Your task to perform on an android device: toggle data saver in the chrome app Image 0: 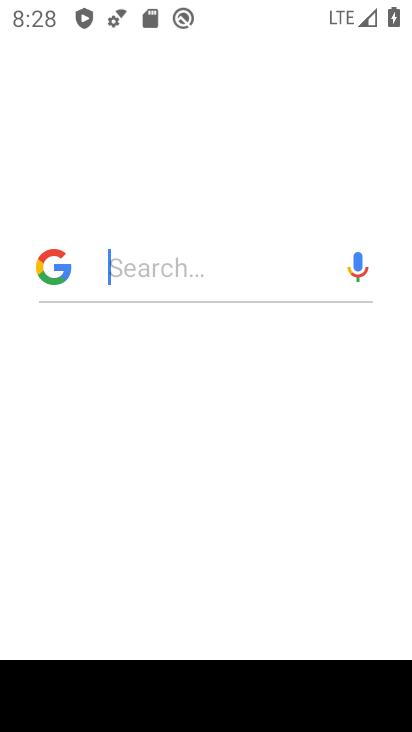
Step 0: drag from (178, 503) to (218, 113)
Your task to perform on an android device: toggle data saver in the chrome app Image 1: 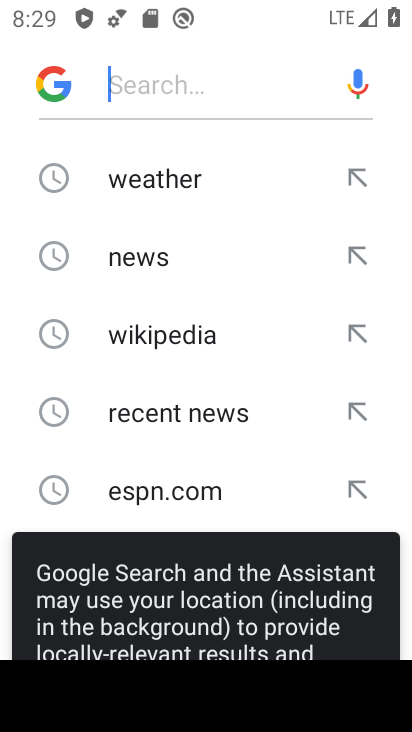
Step 1: press home button
Your task to perform on an android device: toggle data saver in the chrome app Image 2: 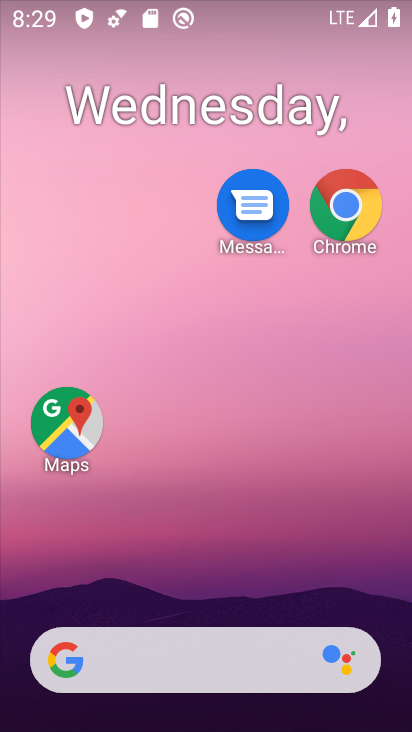
Step 2: drag from (168, 609) to (253, 211)
Your task to perform on an android device: toggle data saver in the chrome app Image 3: 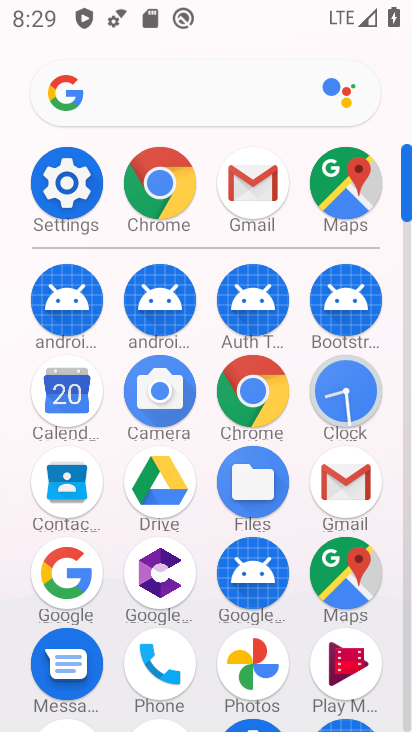
Step 3: click (255, 387)
Your task to perform on an android device: toggle data saver in the chrome app Image 4: 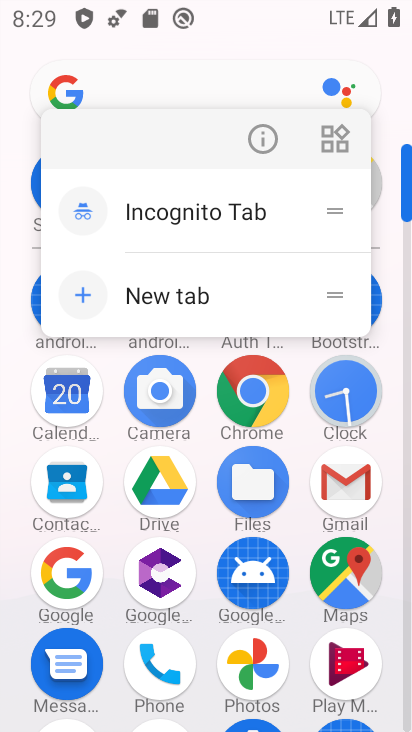
Step 4: click (265, 148)
Your task to perform on an android device: toggle data saver in the chrome app Image 5: 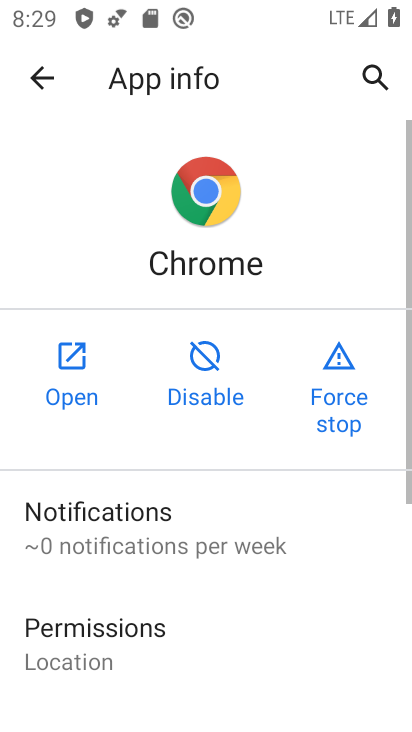
Step 5: click (43, 372)
Your task to perform on an android device: toggle data saver in the chrome app Image 6: 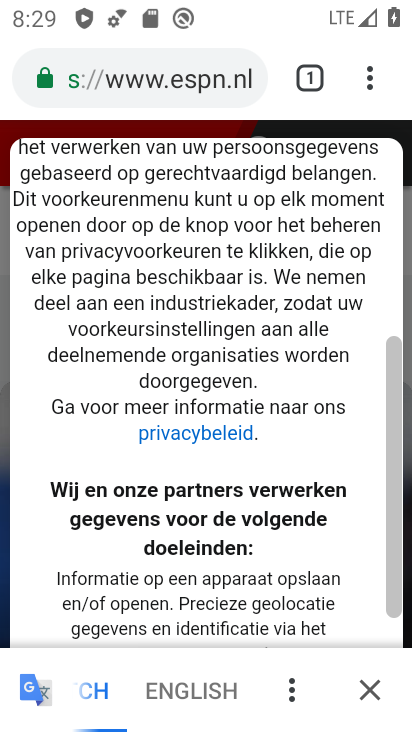
Step 6: drag from (245, 604) to (348, 198)
Your task to perform on an android device: toggle data saver in the chrome app Image 7: 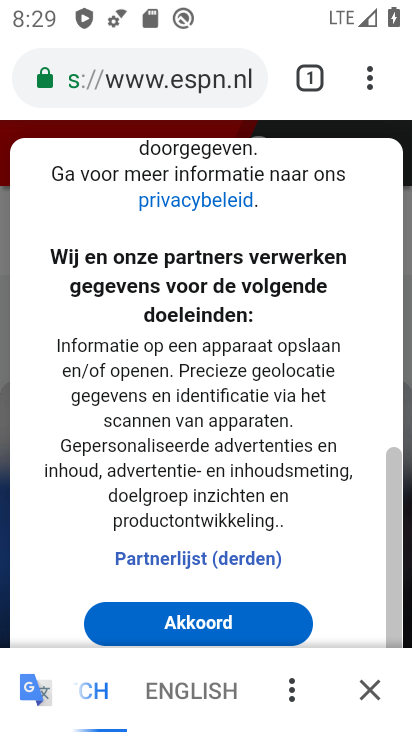
Step 7: click (359, 75)
Your task to perform on an android device: toggle data saver in the chrome app Image 8: 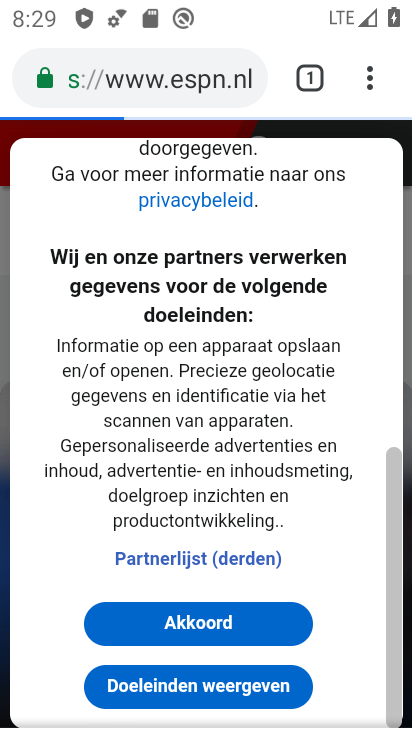
Step 8: click (376, 80)
Your task to perform on an android device: toggle data saver in the chrome app Image 9: 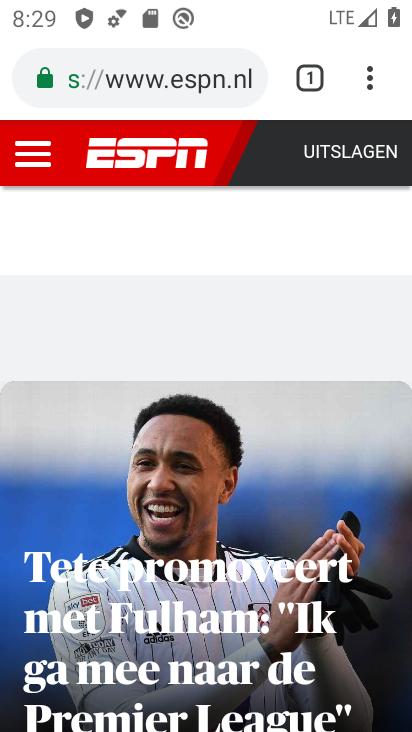
Step 9: click (376, 80)
Your task to perform on an android device: toggle data saver in the chrome app Image 10: 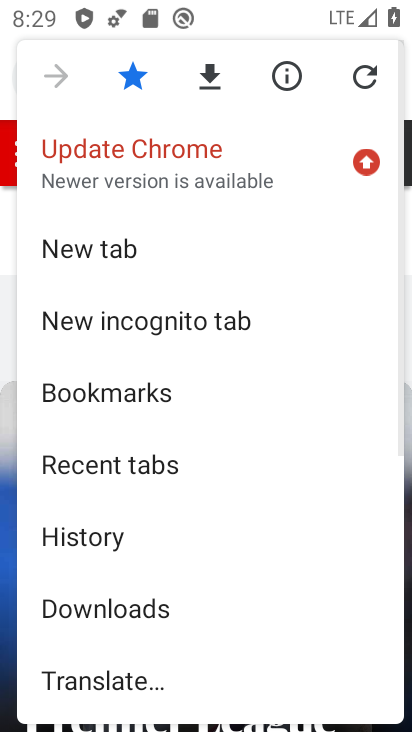
Step 10: drag from (195, 612) to (292, 172)
Your task to perform on an android device: toggle data saver in the chrome app Image 11: 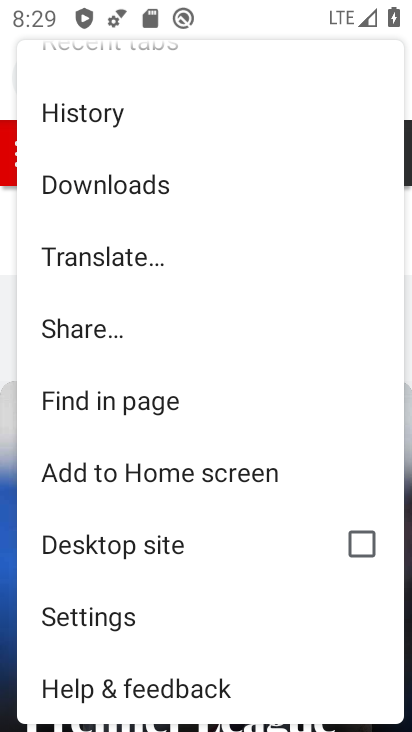
Step 11: drag from (165, 557) to (309, 112)
Your task to perform on an android device: toggle data saver in the chrome app Image 12: 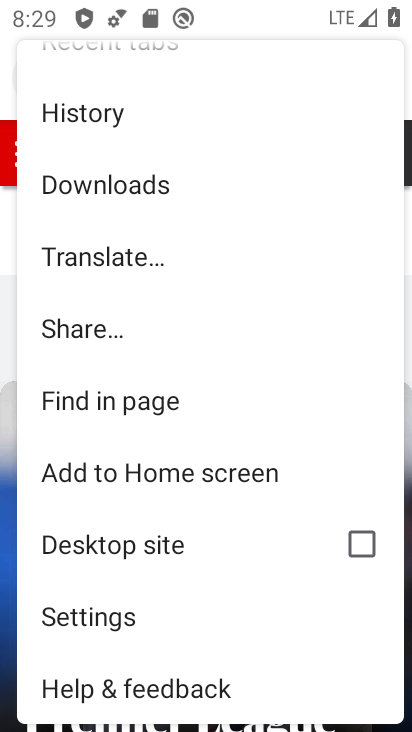
Step 12: click (153, 618)
Your task to perform on an android device: toggle data saver in the chrome app Image 13: 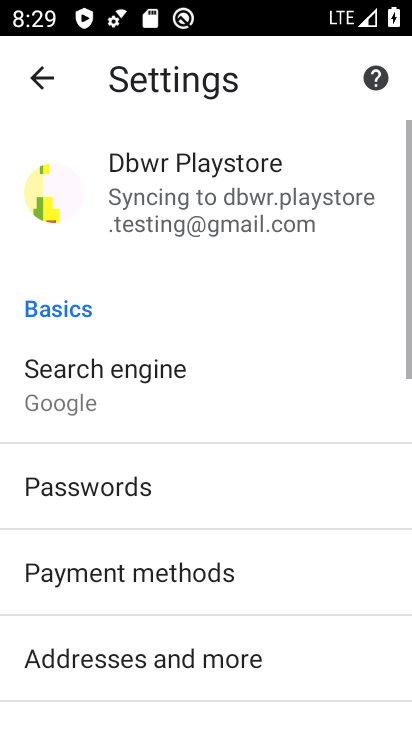
Step 13: drag from (165, 603) to (254, 263)
Your task to perform on an android device: toggle data saver in the chrome app Image 14: 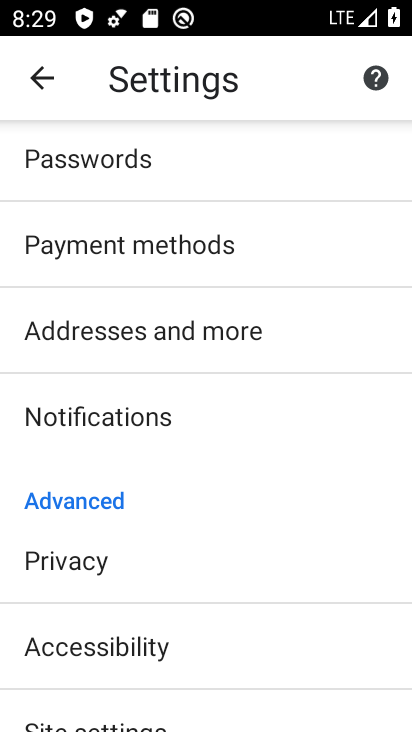
Step 14: drag from (179, 597) to (245, 143)
Your task to perform on an android device: toggle data saver in the chrome app Image 15: 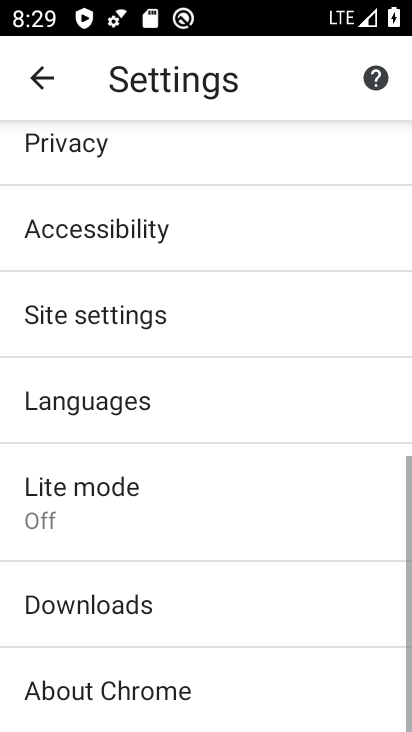
Step 15: click (188, 456)
Your task to perform on an android device: toggle data saver in the chrome app Image 16: 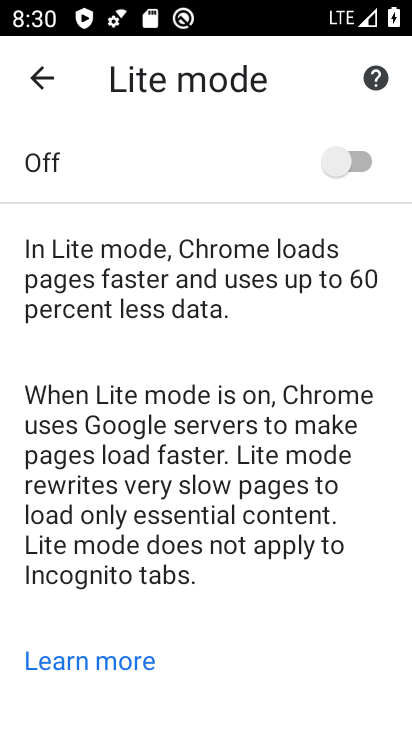
Step 16: click (299, 162)
Your task to perform on an android device: toggle data saver in the chrome app Image 17: 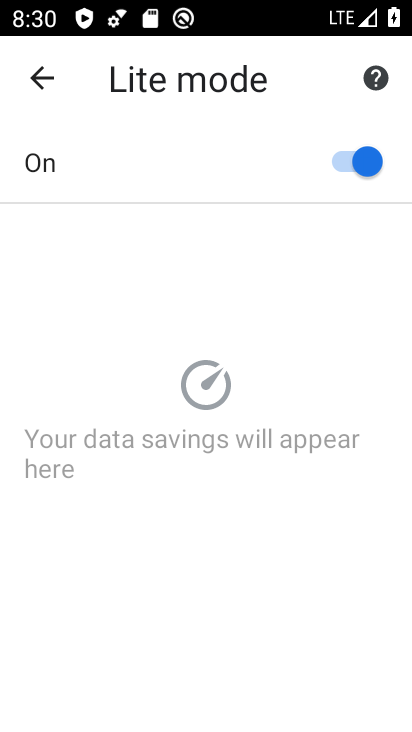
Step 17: task complete